Your task to perform on an android device: turn notification dots on Image 0: 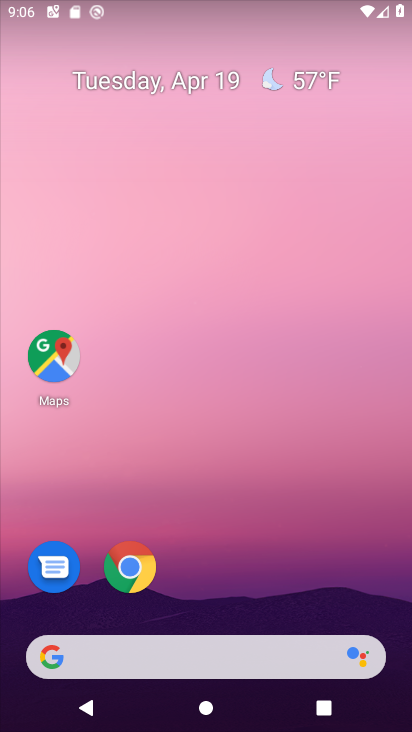
Step 0: drag from (277, 711) to (281, 21)
Your task to perform on an android device: turn notification dots on Image 1: 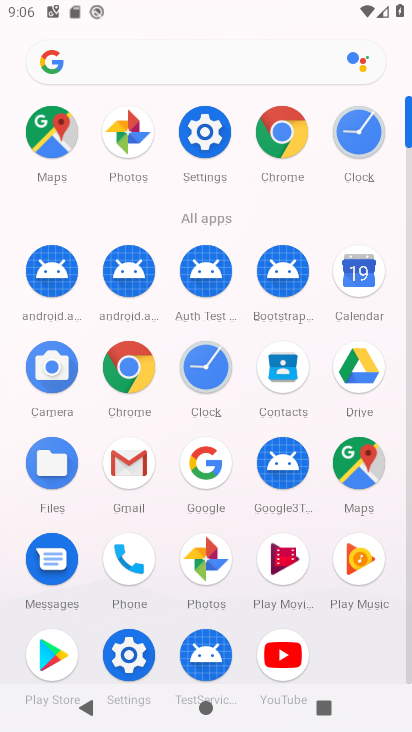
Step 1: click (191, 140)
Your task to perform on an android device: turn notification dots on Image 2: 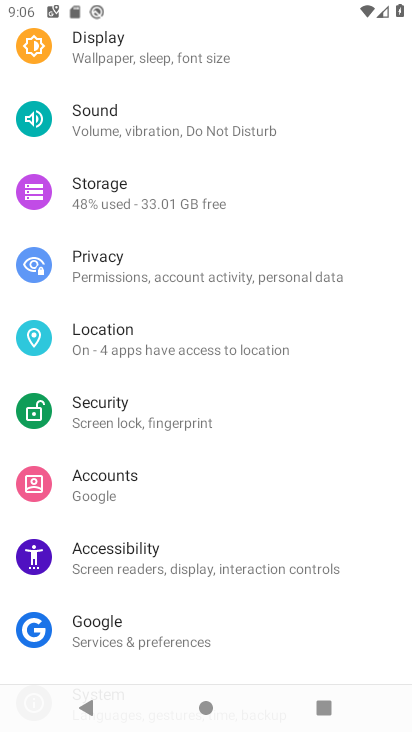
Step 2: drag from (310, 112) to (264, 478)
Your task to perform on an android device: turn notification dots on Image 3: 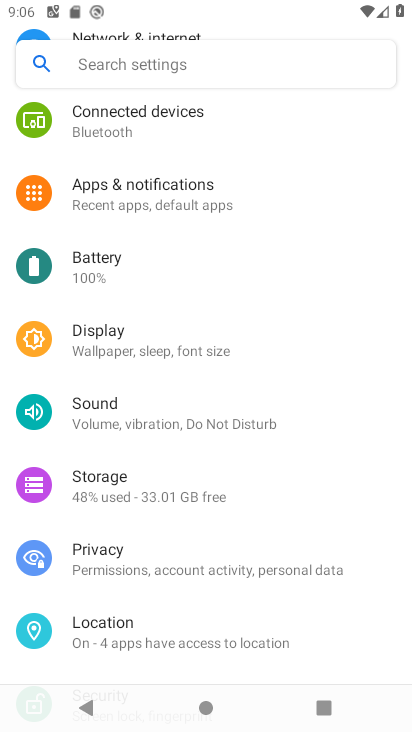
Step 3: click (233, 198)
Your task to perform on an android device: turn notification dots on Image 4: 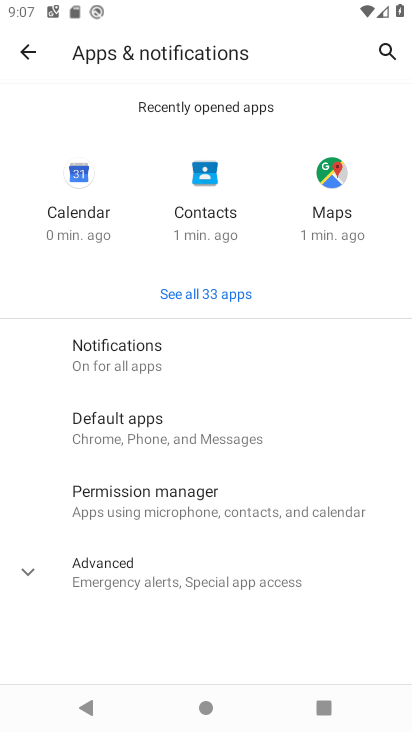
Step 4: click (140, 371)
Your task to perform on an android device: turn notification dots on Image 5: 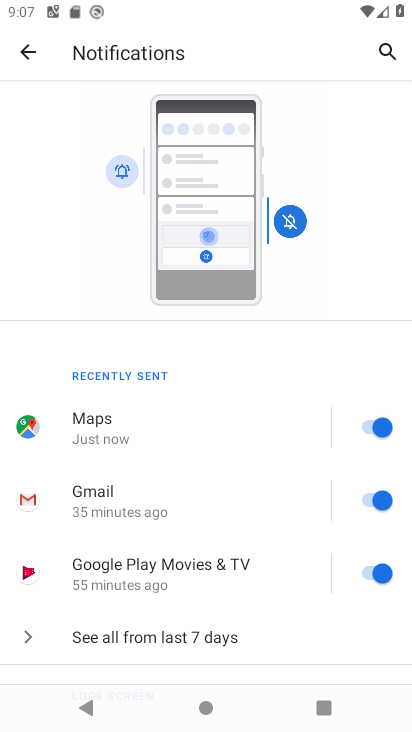
Step 5: drag from (290, 609) to (284, 122)
Your task to perform on an android device: turn notification dots on Image 6: 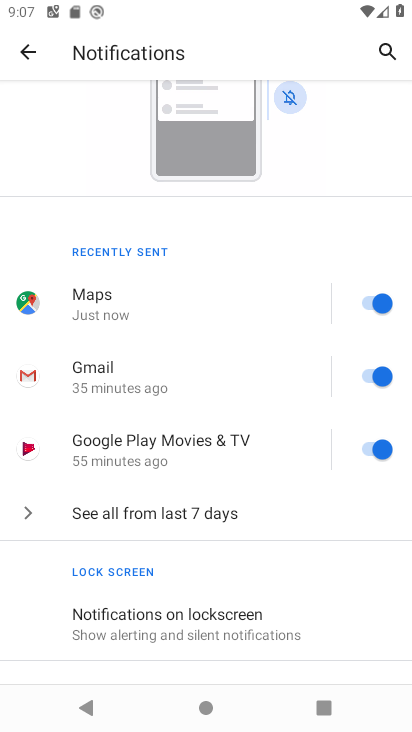
Step 6: click (251, 622)
Your task to perform on an android device: turn notification dots on Image 7: 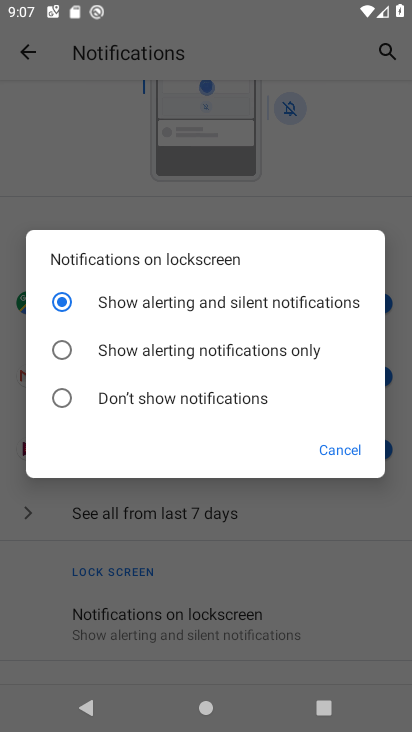
Step 7: click (348, 444)
Your task to perform on an android device: turn notification dots on Image 8: 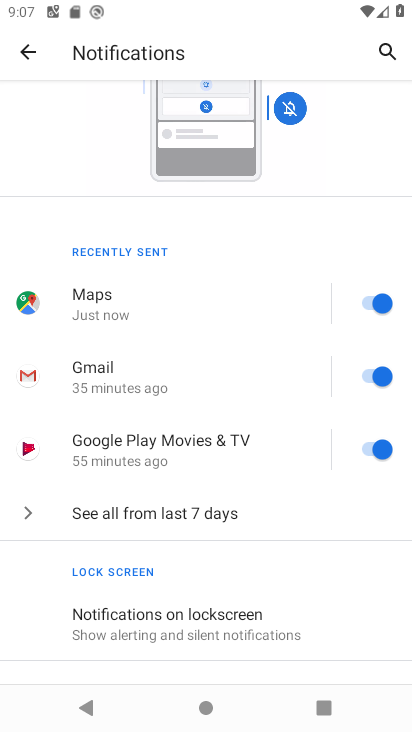
Step 8: drag from (320, 608) to (300, 44)
Your task to perform on an android device: turn notification dots on Image 9: 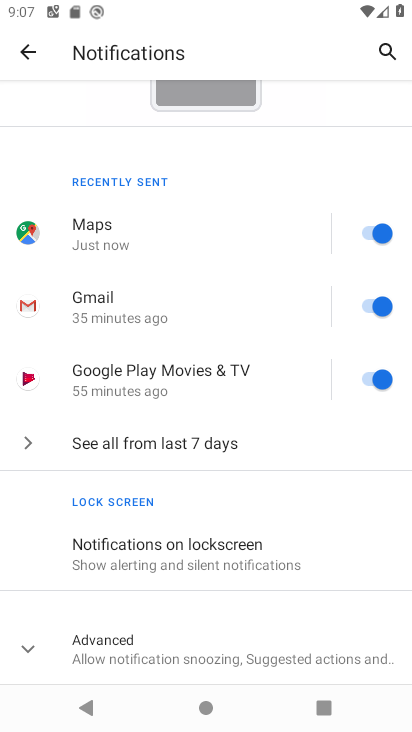
Step 9: click (295, 658)
Your task to perform on an android device: turn notification dots on Image 10: 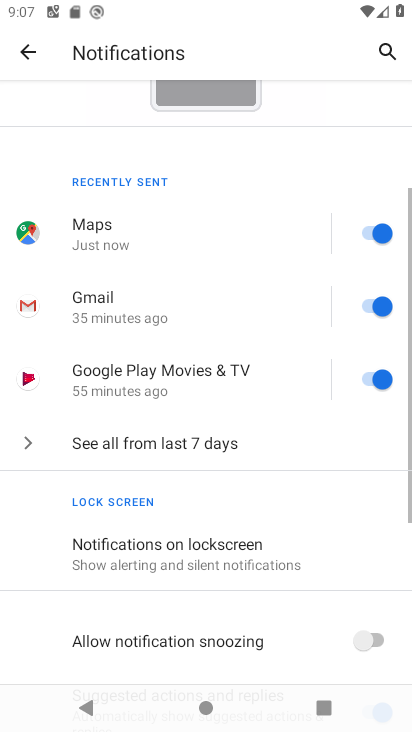
Step 10: task complete